Your task to perform on an android device: toggle airplane mode Image 0: 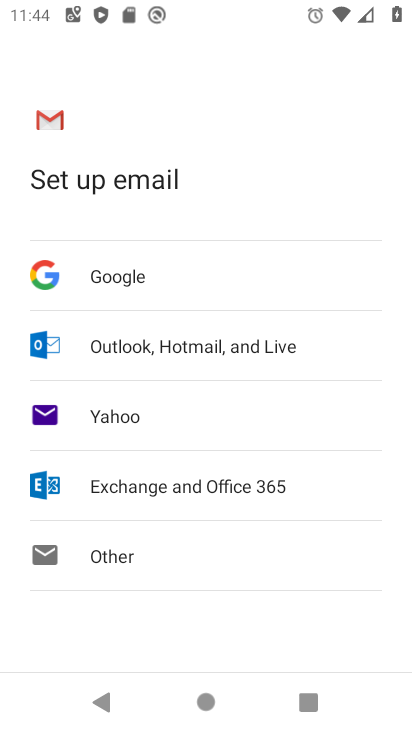
Step 0: press home button
Your task to perform on an android device: toggle airplane mode Image 1: 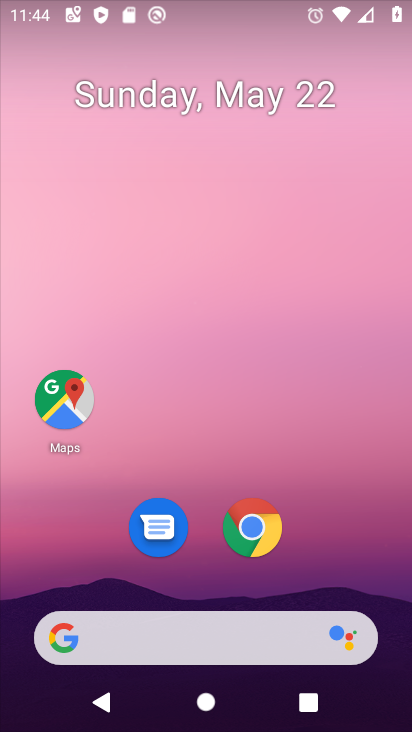
Step 1: drag from (329, 601) to (339, 231)
Your task to perform on an android device: toggle airplane mode Image 2: 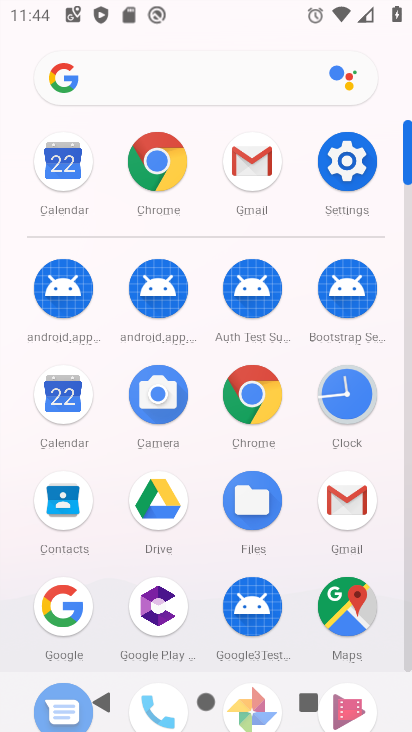
Step 2: click (334, 196)
Your task to perform on an android device: toggle airplane mode Image 3: 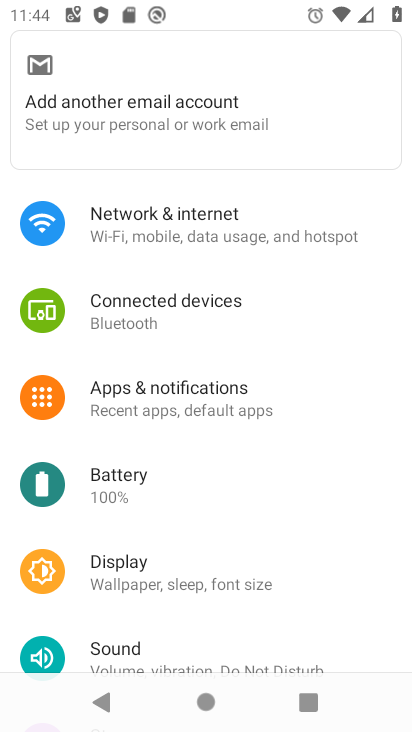
Step 3: drag from (222, 354) to (236, 615)
Your task to perform on an android device: toggle airplane mode Image 4: 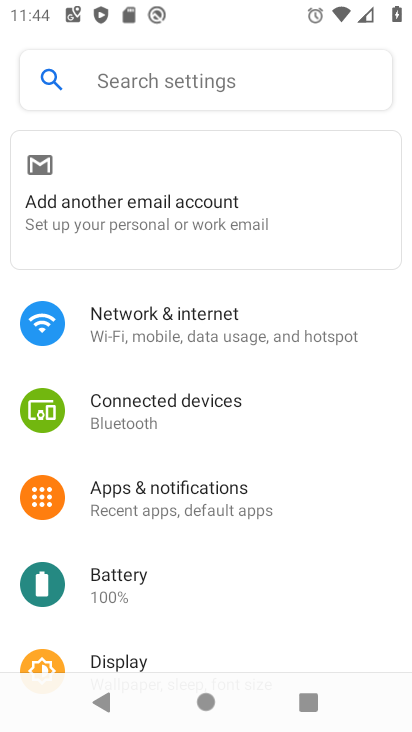
Step 4: click (244, 328)
Your task to perform on an android device: toggle airplane mode Image 5: 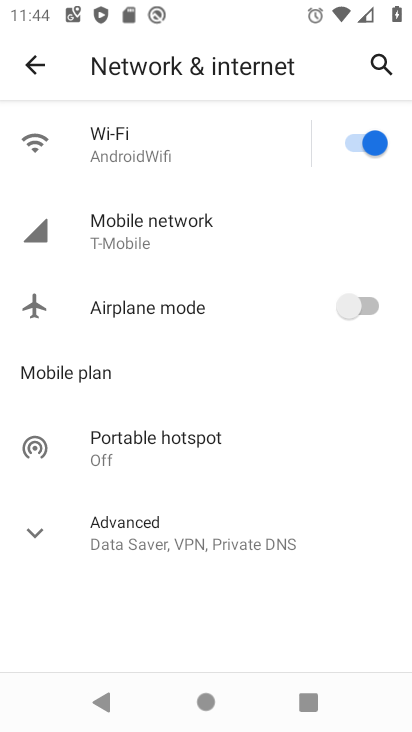
Step 5: task complete